Your task to perform on an android device: Show me recent news Image 0: 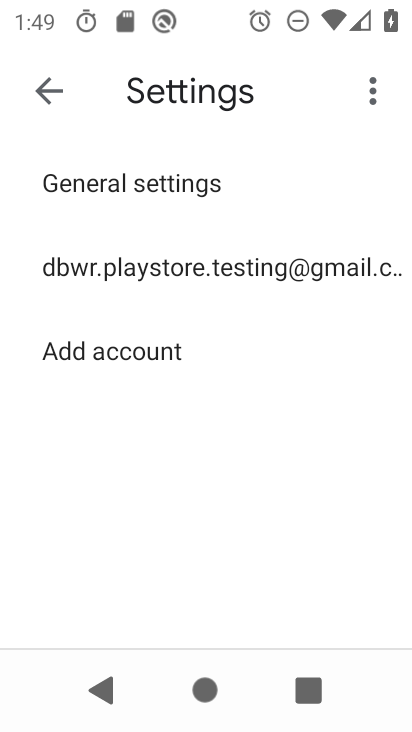
Step 0: press home button
Your task to perform on an android device: Show me recent news Image 1: 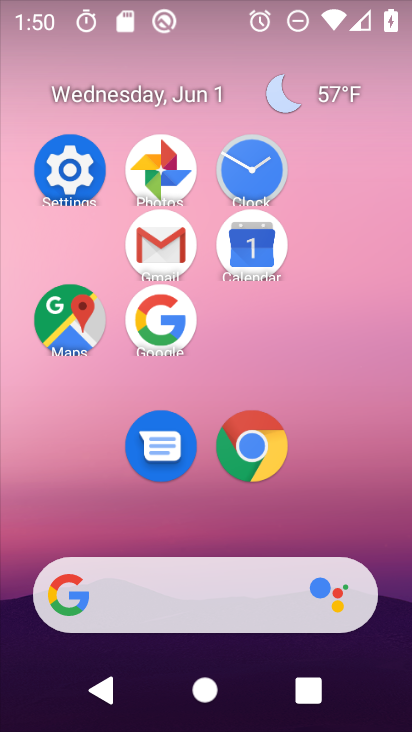
Step 1: click (169, 321)
Your task to perform on an android device: Show me recent news Image 2: 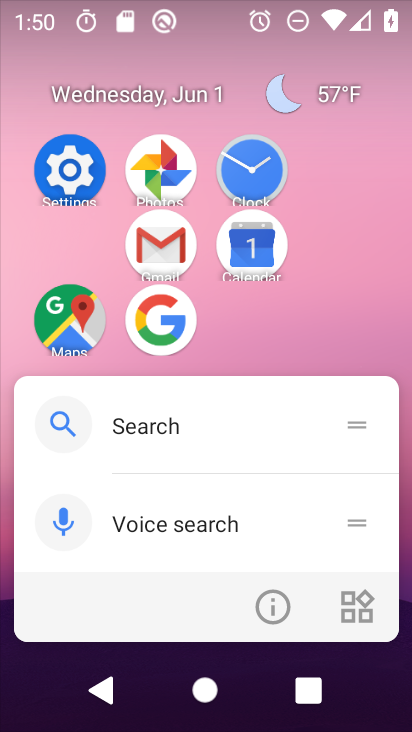
Step 2: click (163, 347)
Your task to perform on an android device: Show me recent news Image 3: 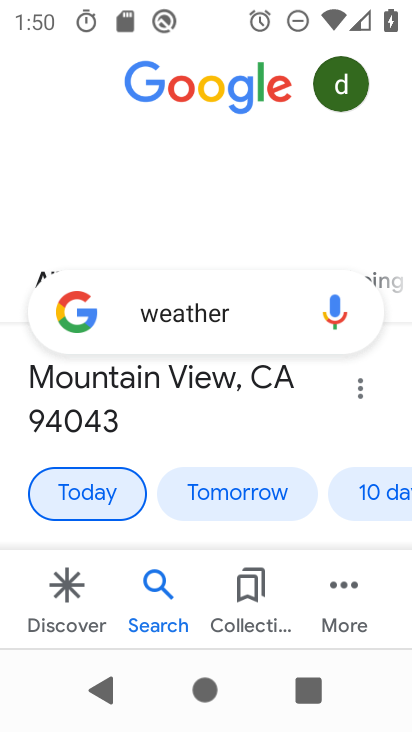
Step 3: click (269, 318)
Your task to perform on an android device: Show me recent news Image 4: 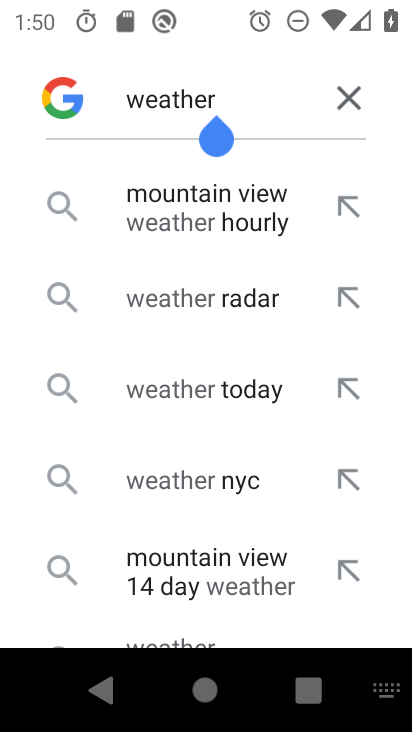
Step 4: click (350, 99)
Your task to perform on an android device: Show me recent news Image 5: 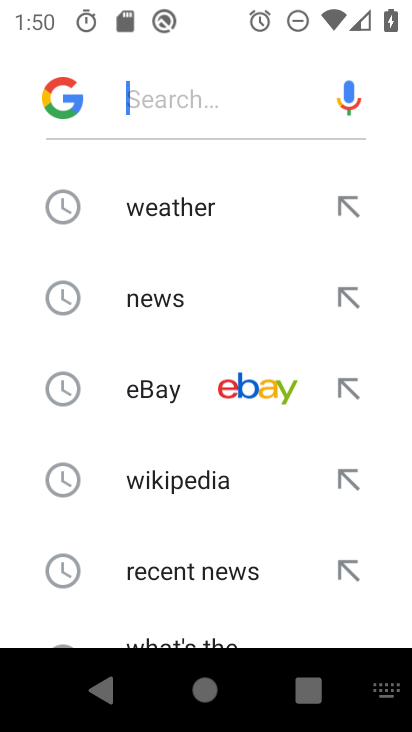
Step 5: click (183, 563)
Your task to perform on an android device: Show me recent news Image 6: 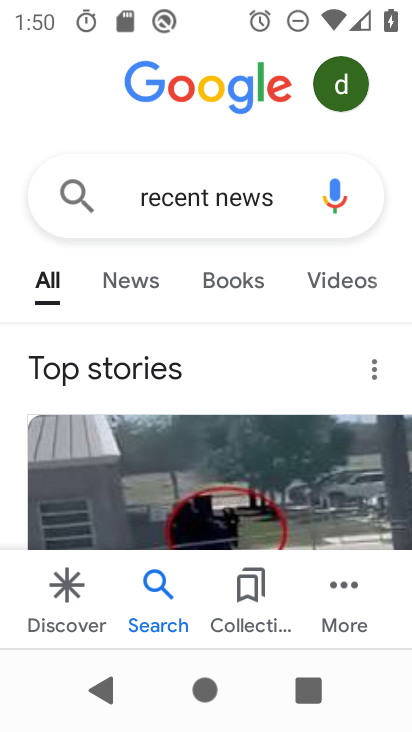
Step 6: task complete